Your task to perform on an android device: Go to Google maps Image 0: 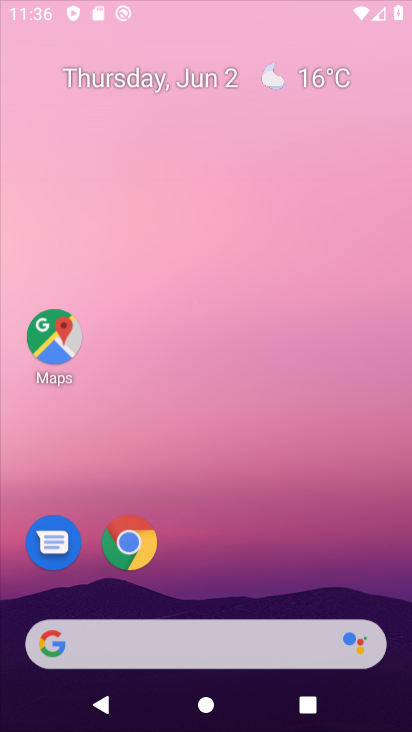
Step 0: press home button
Your task to perform on an android device: Go to Google maps Image 1: 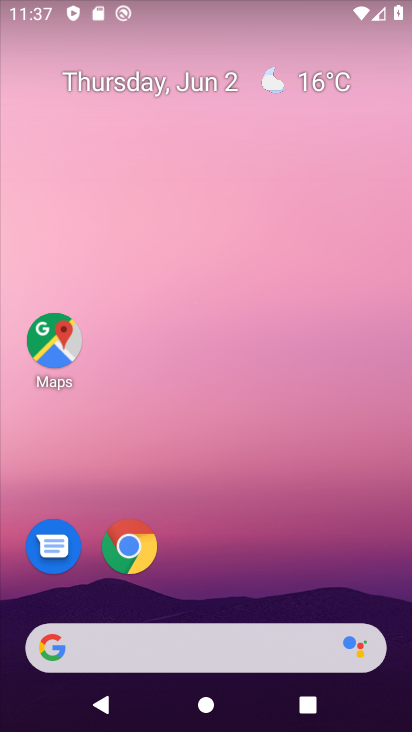
Step 1: click (60, 350)
Your task to perform on an android device: Go to Google maps Image 2: 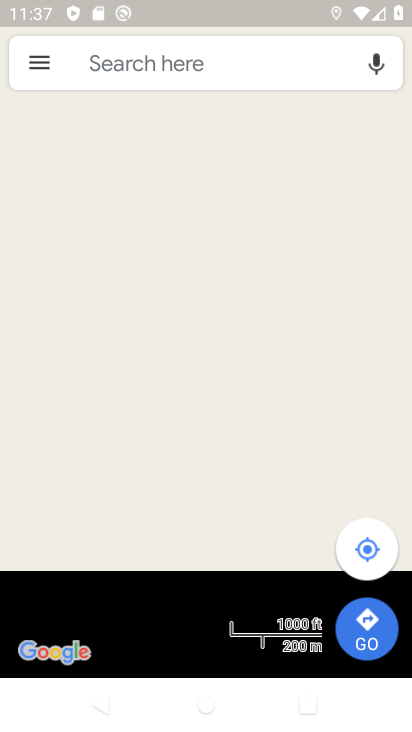
Step 2: click (116, 69)
Your task to perform on an android device: Go to Google maps Image 3: 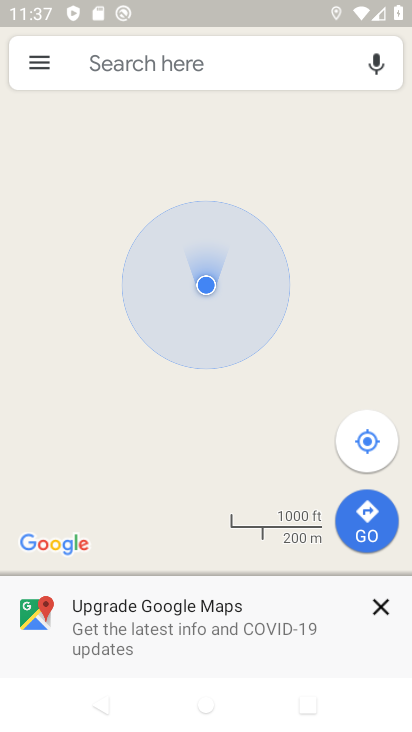
Step 3: task complete